Your task to perform on an android device: open app "Venmo" (install if not already installed) and enter user name: "bleedings@gmail.com" and password: "copied" Image 0: 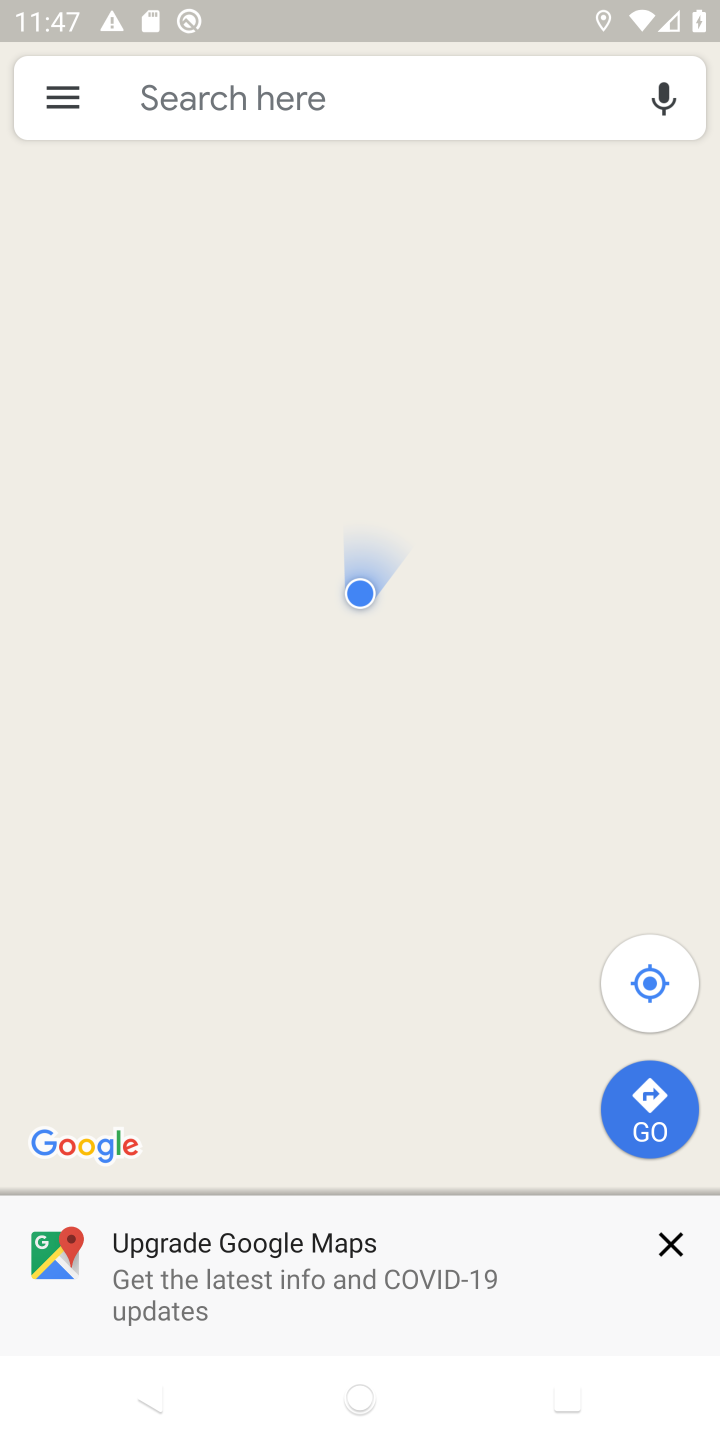
Step 0: press home button
Your task to perform on an android device: open app "Venmo" (install if not already installed) and enter user name: "bleedings@gmail.com" and password: "copied" Image 1: 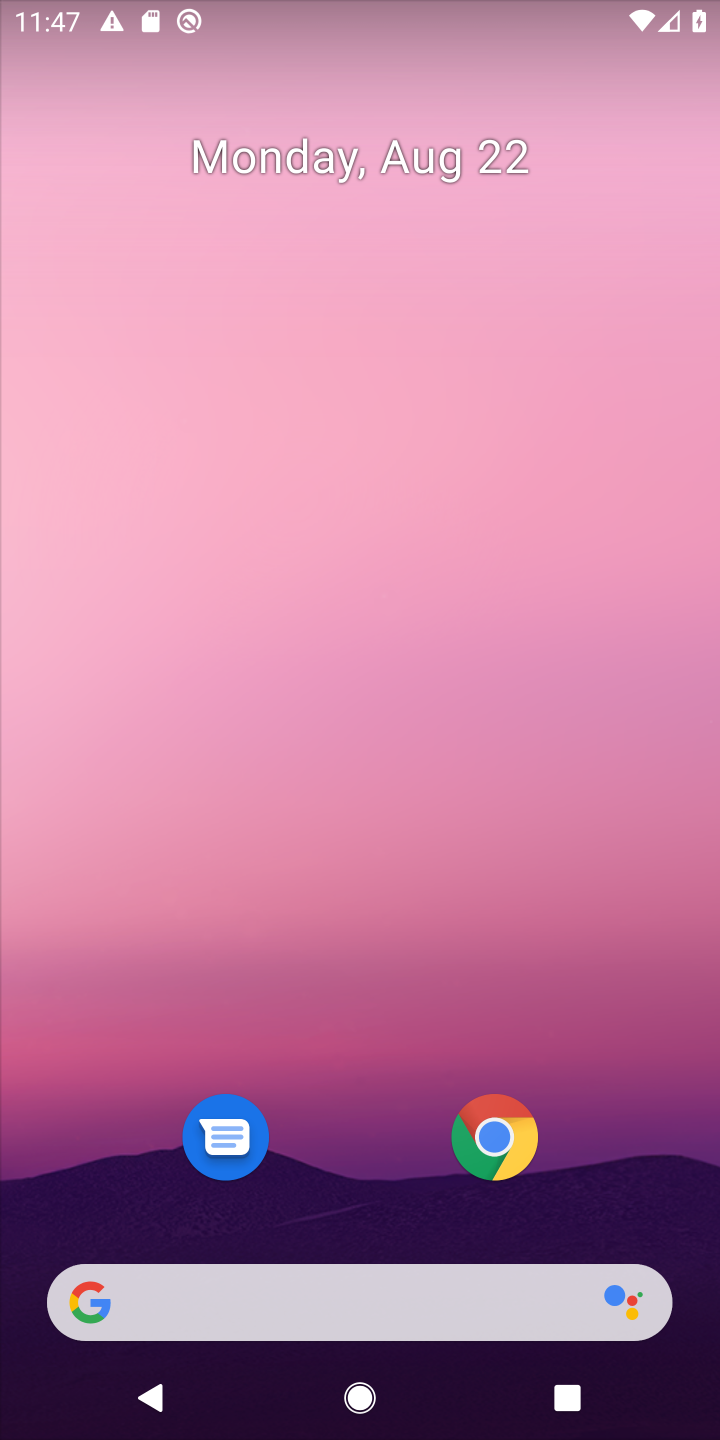
Step 1: drag from (385, 93) to (385, 14)
Your task to perform on an android device: open app "Venmo" (install if not already installed) and enter user name: "bleedings@gmail.com" and password: "copied" Image 2: 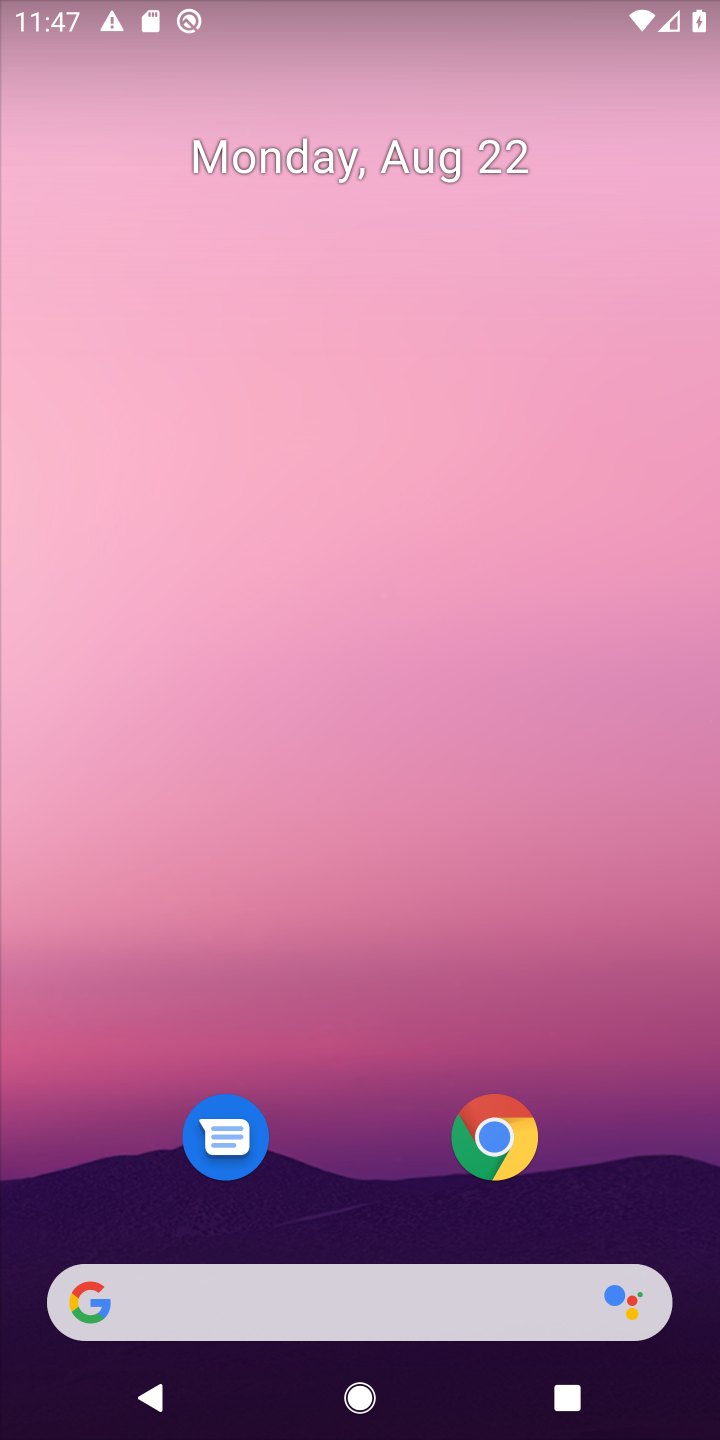
Step 2: drag from (328, 1083) to (376, 122)
Your task to perform on an android device: open app "Venmo" (install if not already installed) and enter user name: "bleedings@gmail.com" and password: "copied" Image 3: 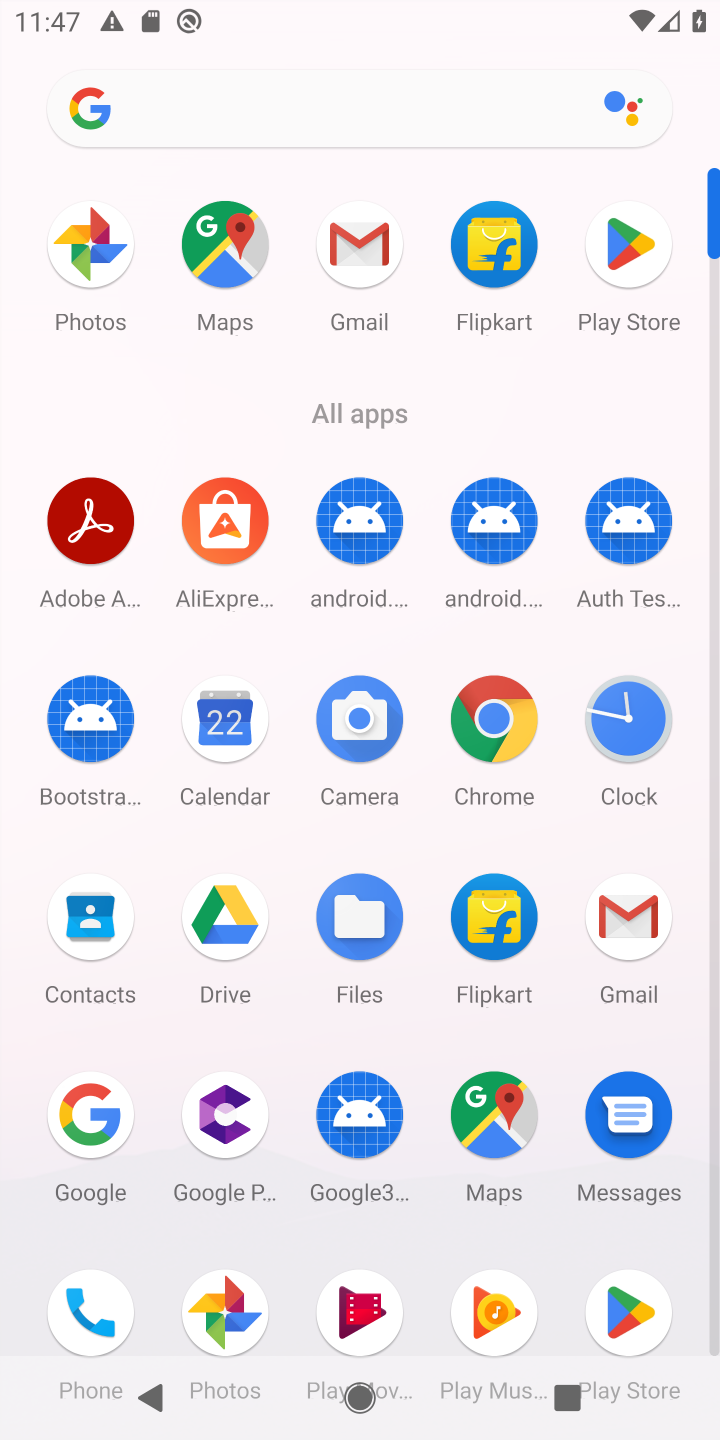
Step 3: click (634, 223)
Your task to perform on an android device: open app "Venmo" (install if not already installed) and enter user name: "bleedings@gmail.com" and password: "copied" Image 4: 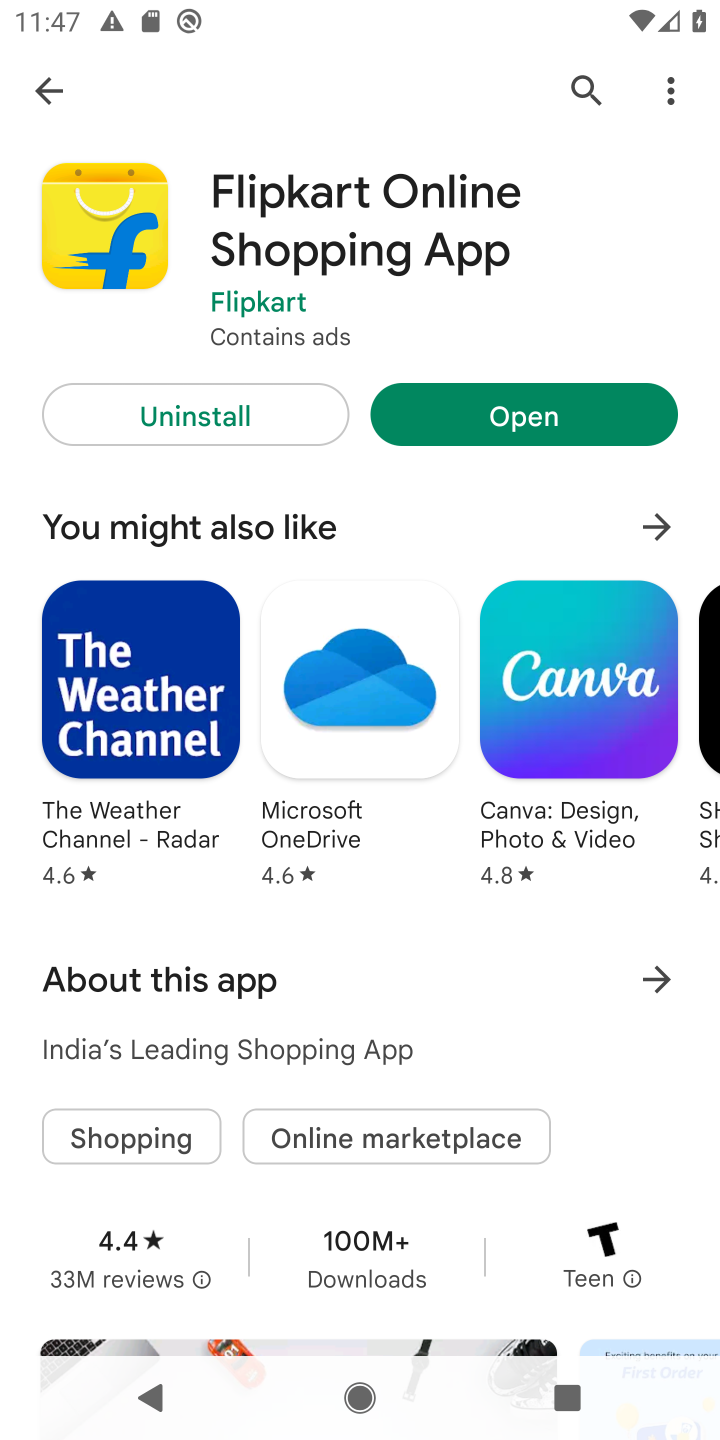
Step 4: click (47, 95)
Your task to perform on an android device: open app "Venmo" (install if not already installed) and enter user name: "bleedings@gmail.com" and password: "copied" Image 5: 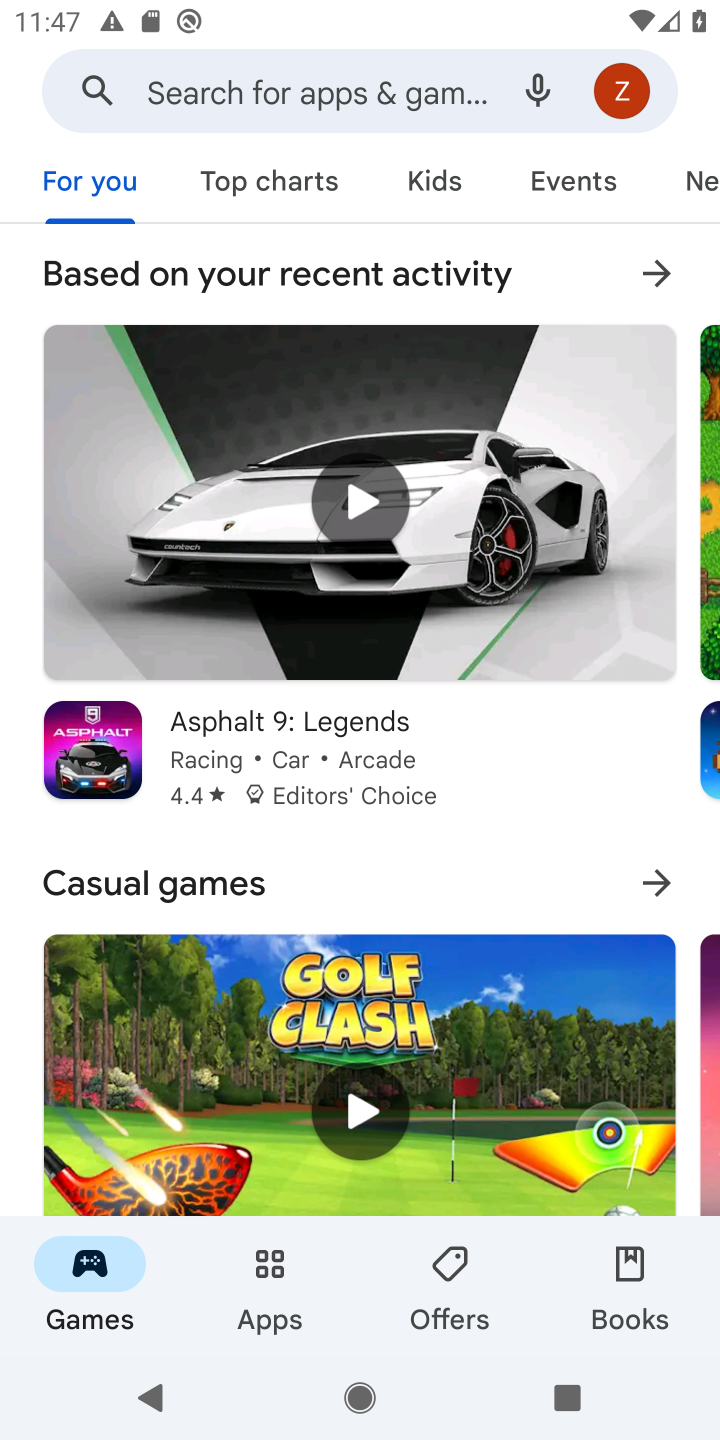
Step 5: click (318, 97)
Your task to perform on an android device: open app "Venmo" (install if not already installed) and enter user name: "bleedings@gmail.com" and password: "copied" Image 6: 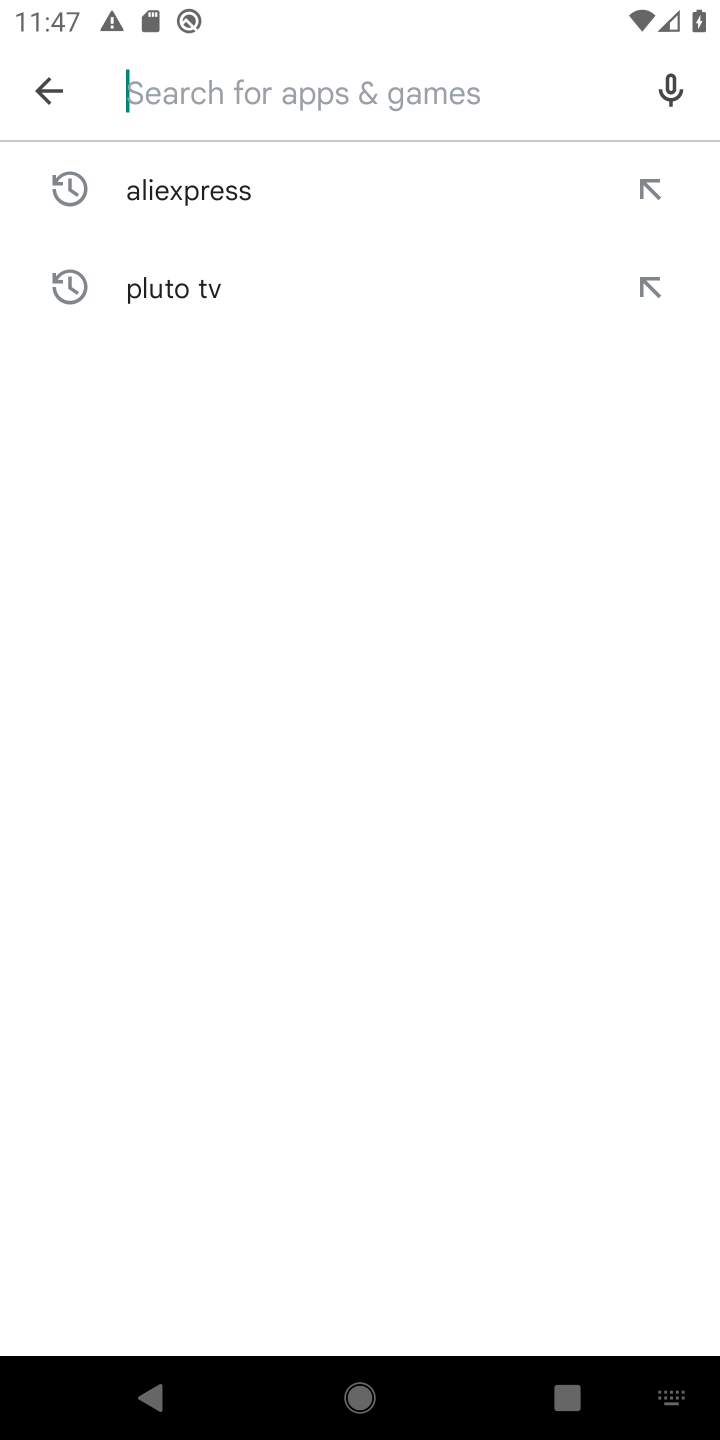
Step 6: type "Venmo"
Your task to perform on an android device: open app "Venmo" (install if not already installed) and enter user name: "bleedings@gmail.com" and password: "copied" Image 7: 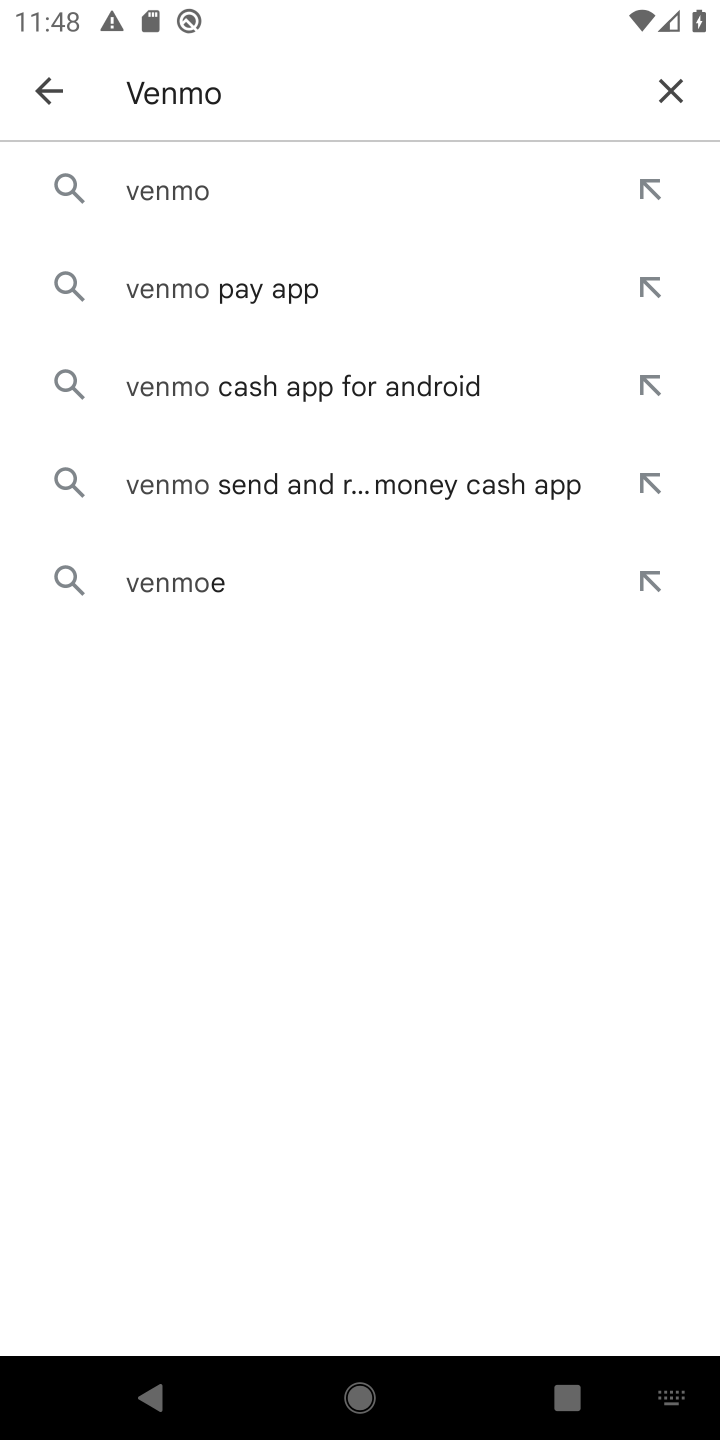
Step 7: click (169, 188)
Your task to perform on an android device: open app "Venmo" (install if not already installed) and enter user name: "bleedings@gmail.com" and password: "copied" Image 8: 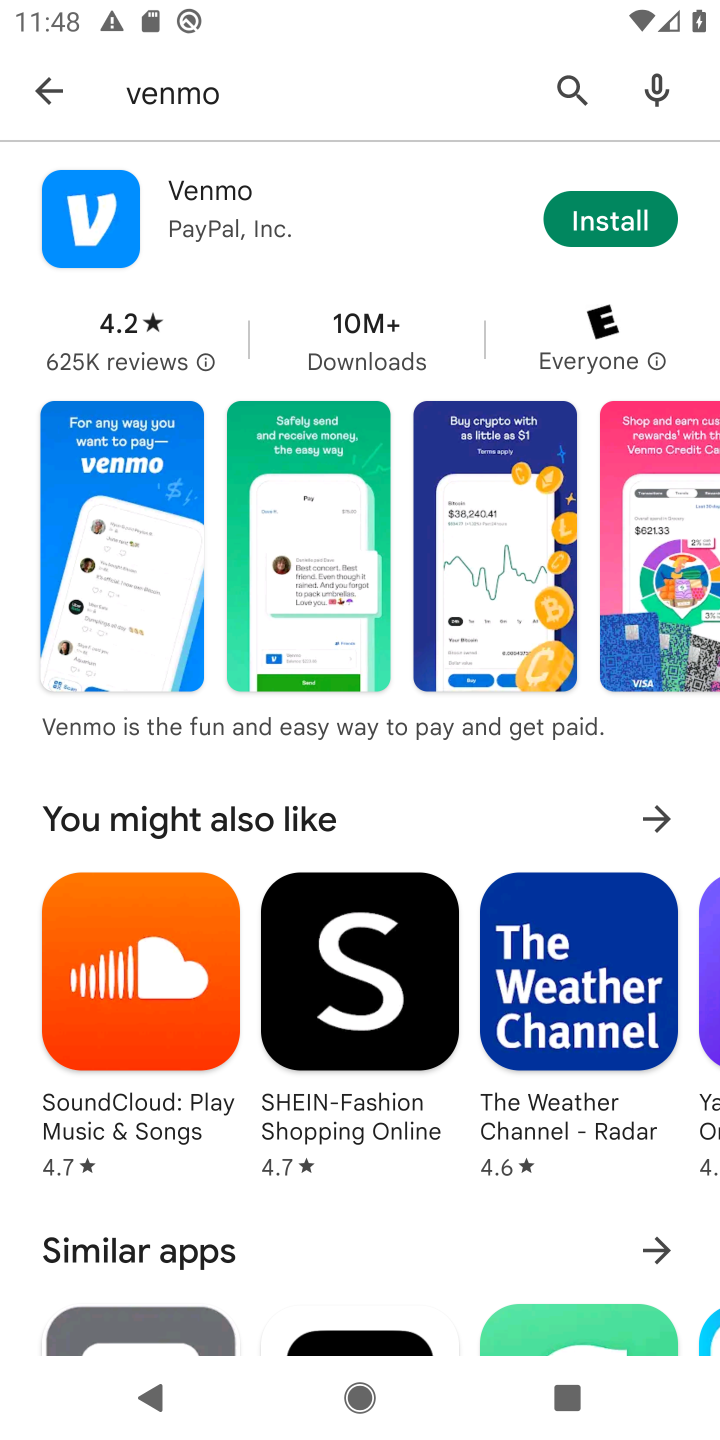
Step 8: click (637, 220)
Your task to perform on an android device: open app "Venmo" (install if not already installed) and enter user name: "bleedings@gmail.com" and password: "copied" Image 9: 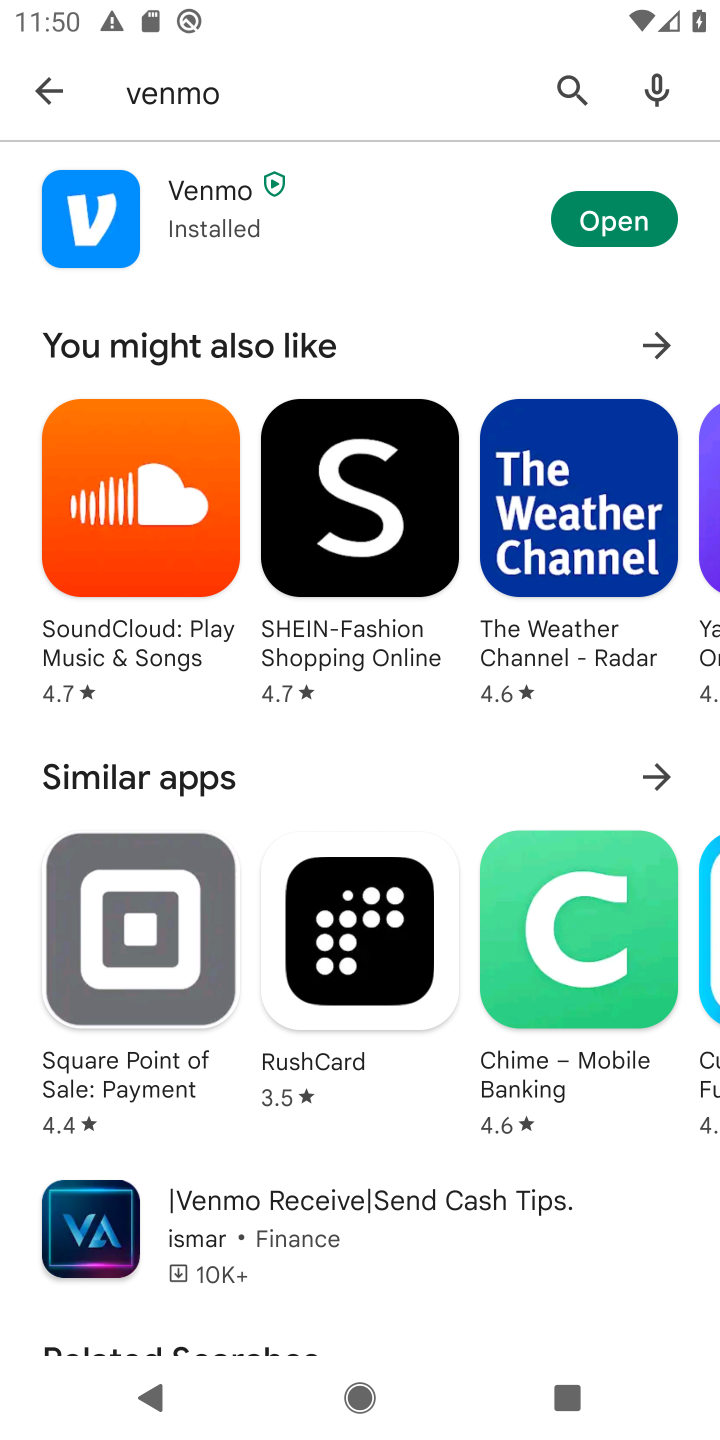
Step 9: click (637, 220)
Your task to perform on an android device: open app "Venmo" (install if not already installed) and enter user name: "bleedings@gmail.com" and password: "copied" Image 10: 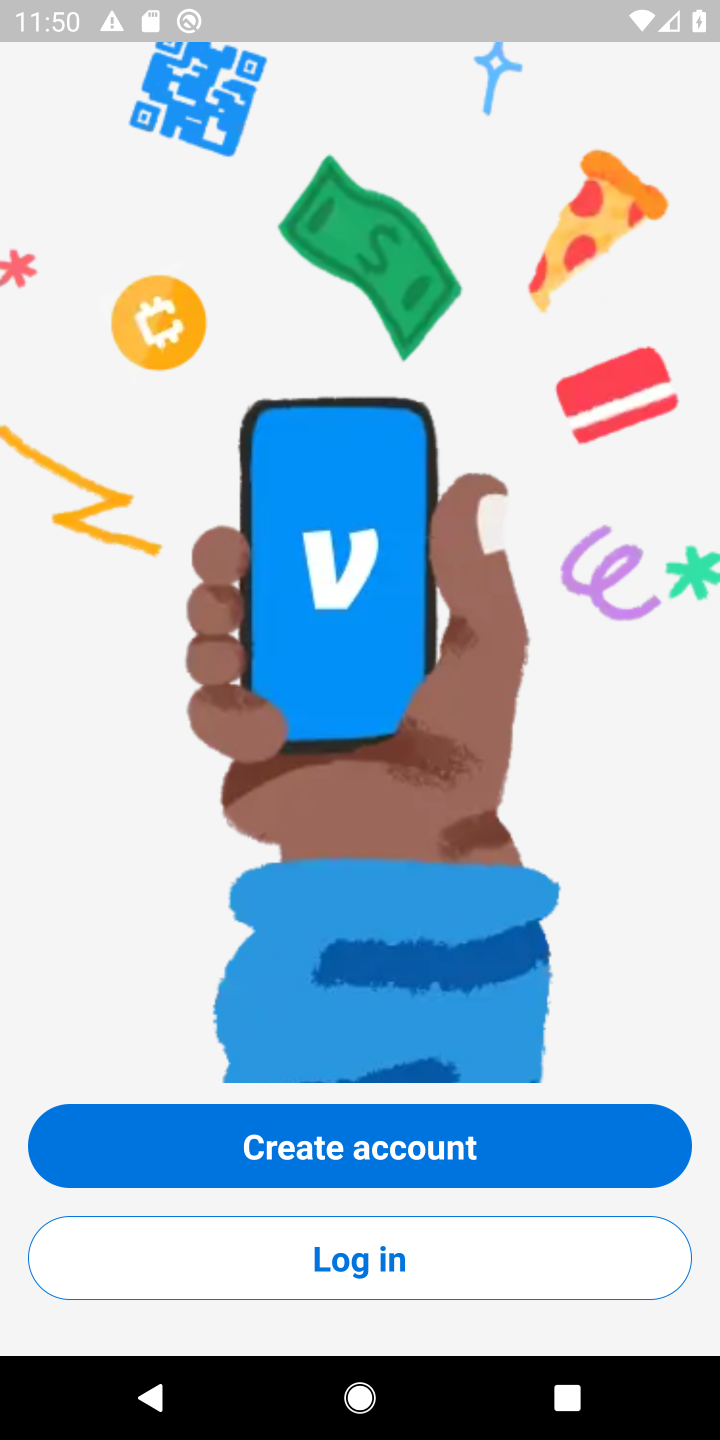
Step 10: click (385, 1242)
Your task to perform on an android device: open app "Venmo" (install if not already installed) and enter user name: "bleedings@gmail.com" and password: "copied" Image 11: 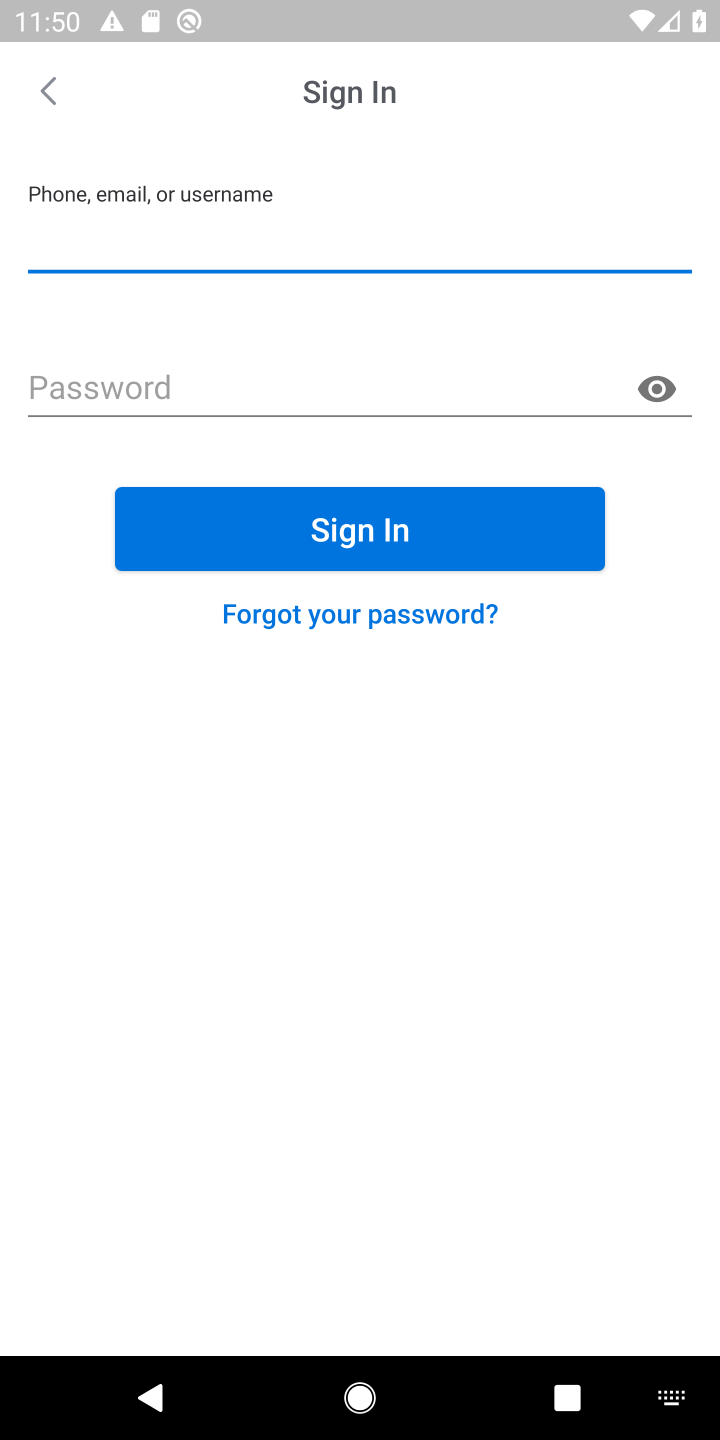
Step 11: type "bleedings@gmail.com"
Your task to perform on an android device: open app "Venmo" (install if not already installed) and enter user name: "bleedings@gmail.com" and password: "copied" Image 12: 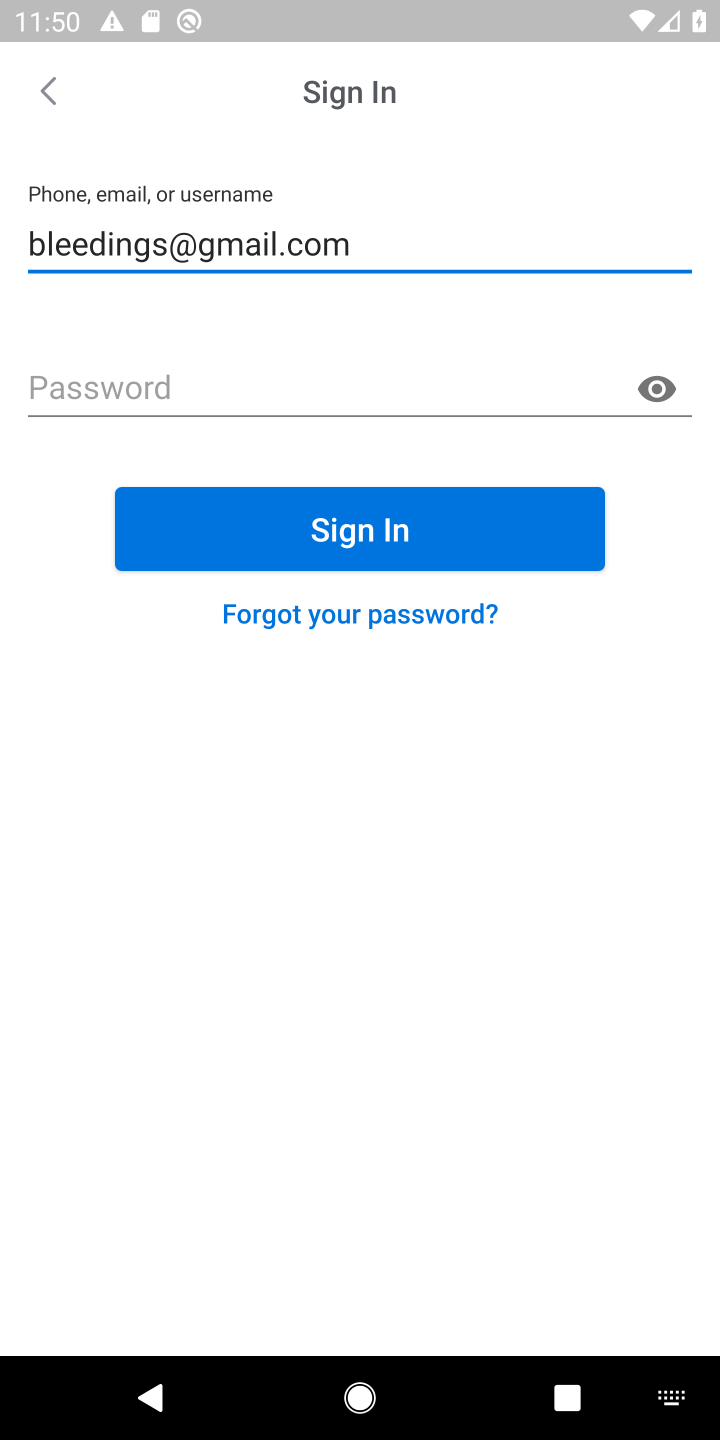
Step 12: click (184, 370)
Your task to perform on an android device: open app "Venmo" (install if not already installed) and enter user name: "bleedings@gmail.com" and password: "copied" Image 13: 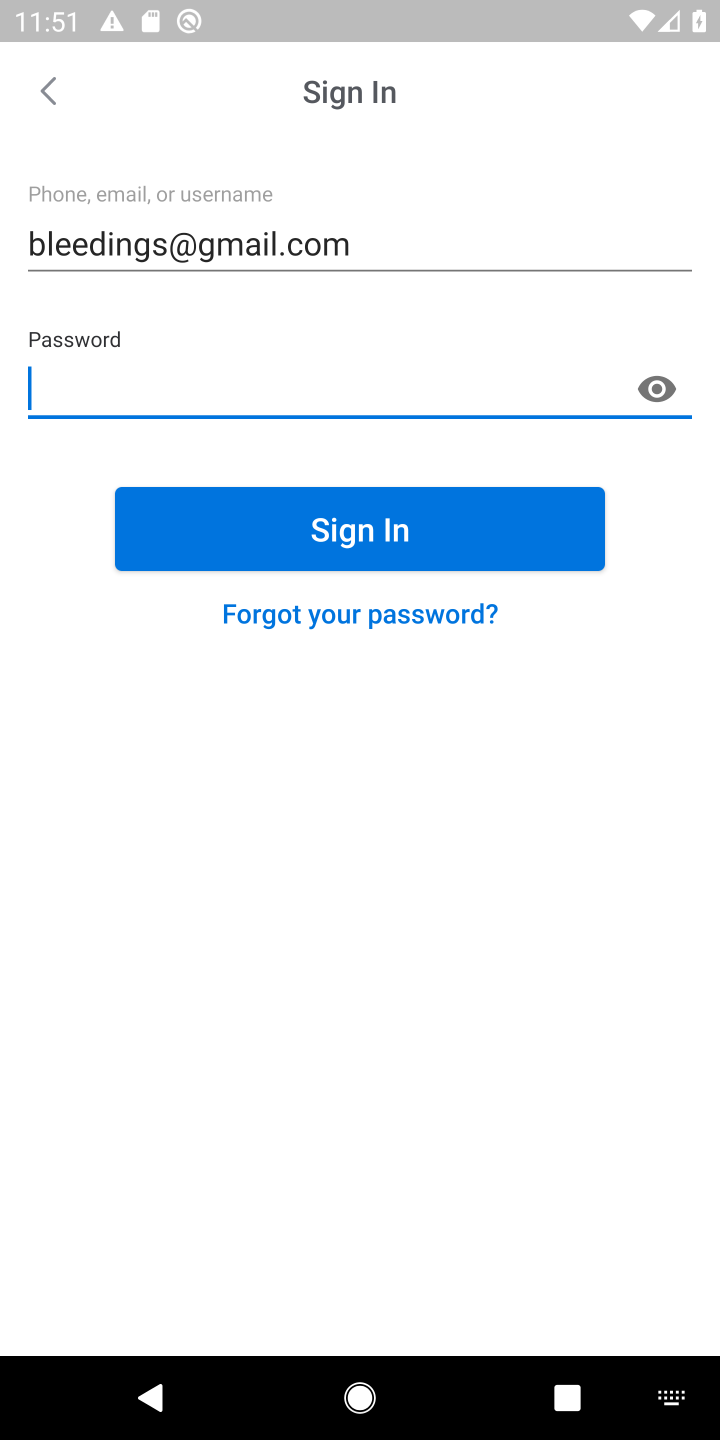
Step 13: type "copied"
Your task to perform on an android device: open app "Venmo" (install if not already installed) and enter user name: "bleedings@gmail.com" and password: "copied" Image 14: 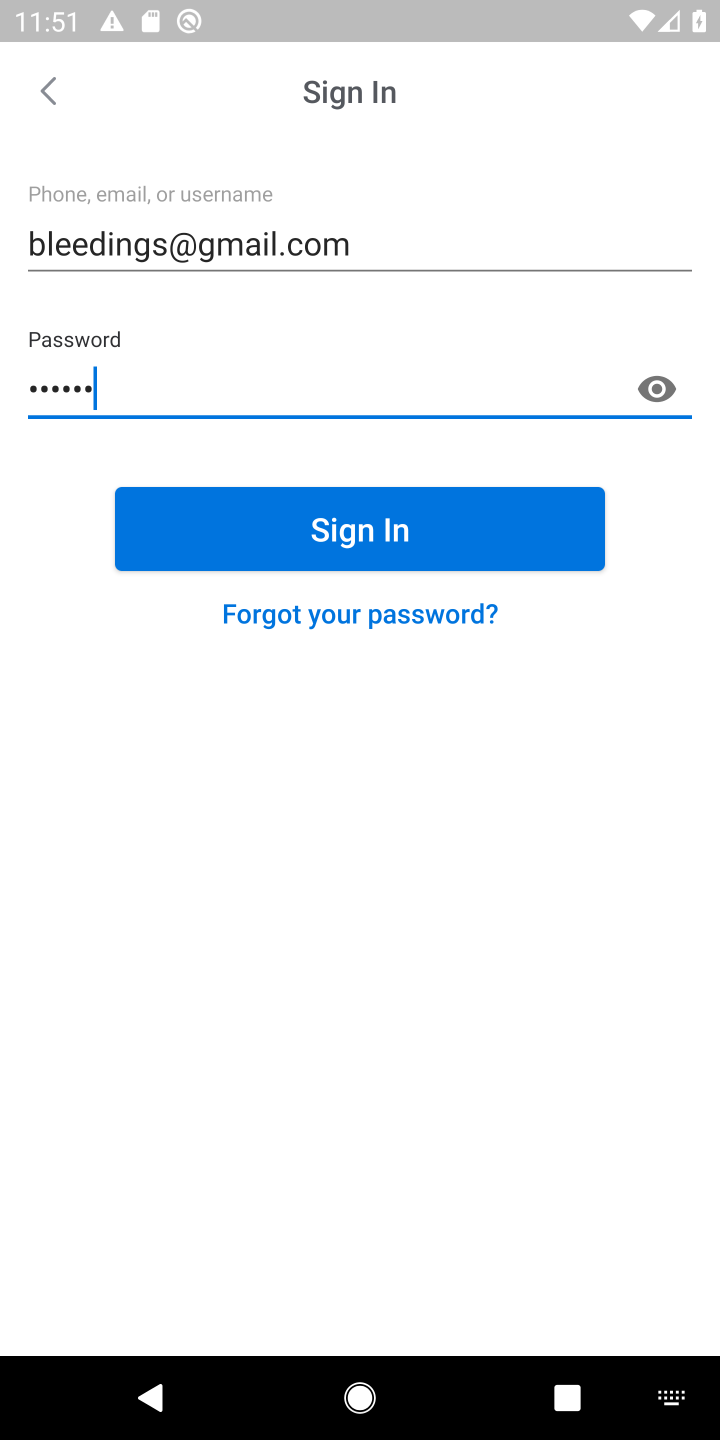
Step 14: click (281, 526)
Your task to perform on an android device: open app "Venmo" (install if not already installed) and enter user name: "bleedings@gmail.com" and password: "copied" Image 15: 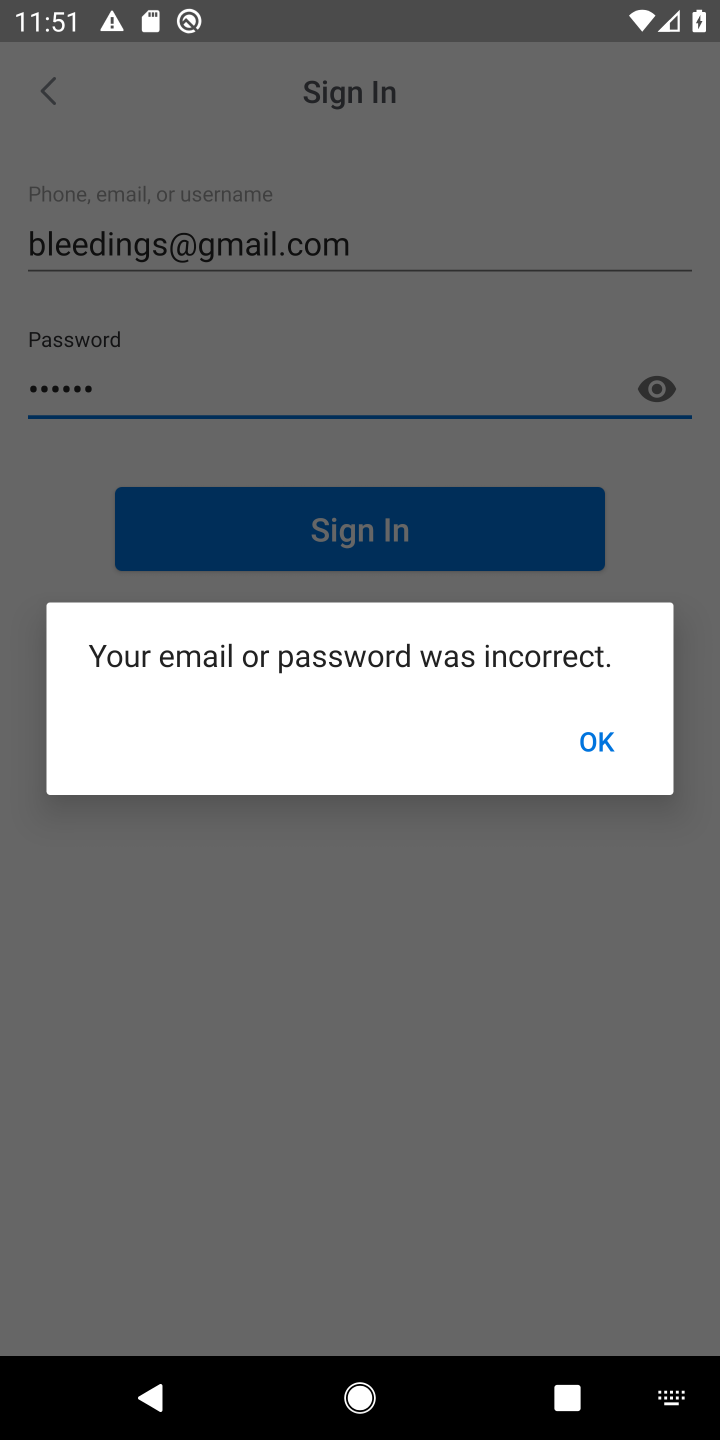
Step 15: task complete